Your task to perform on an android device: Open privacy settings Image 0: 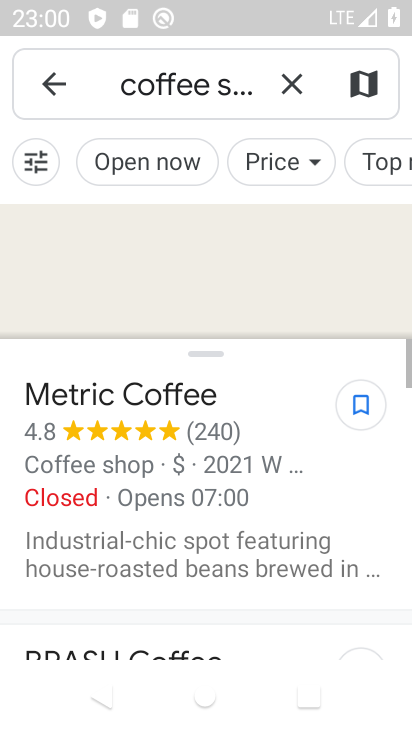
Step 0: press home button
Your task to perform on an android device: Open privacy settings Image 1: 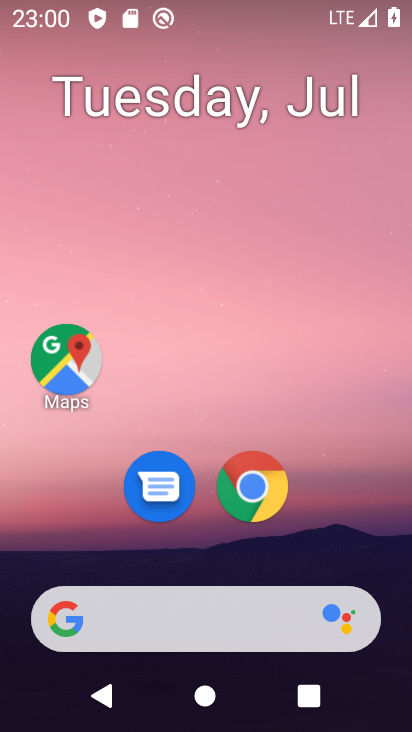
Step 1: drag from (367, 539) to (362, 202)
Your task to perform on an android device: Open privacy settings Image 2: 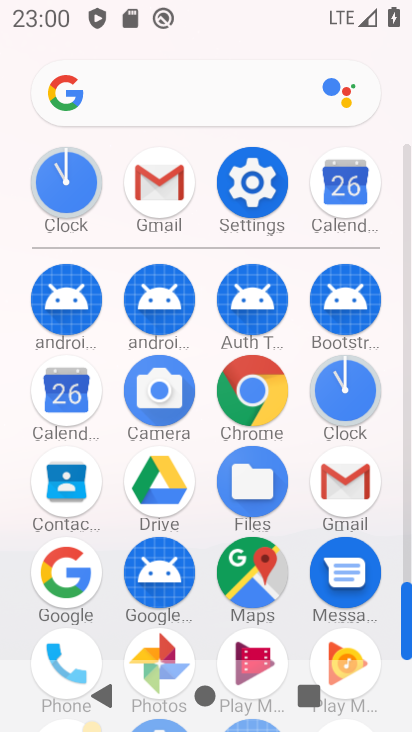
Step 2: click (249, 205)
Your task to perform on an android device: Open privacy settings Image 3: 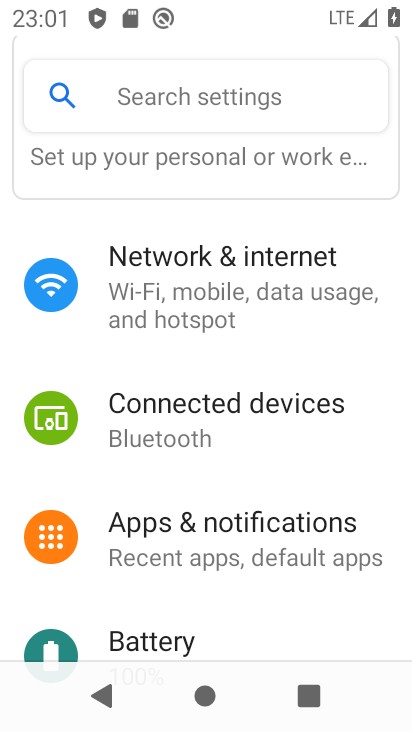
Step 3: drag from (361, 483) to (345, 384)
Your task to perform on an android device: Open privacy settings Image 4: 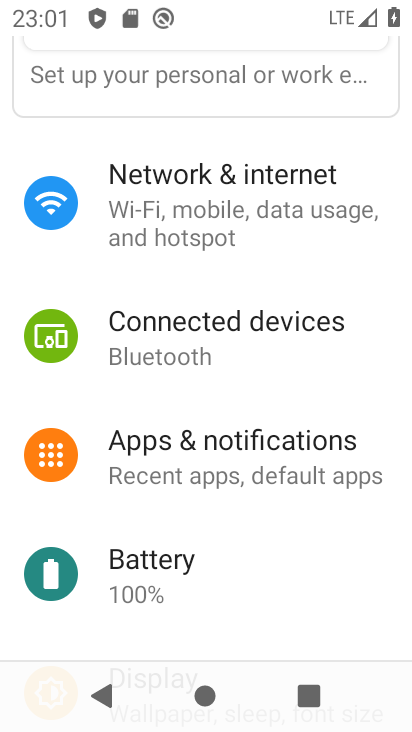
Step 4: drag from (362, 532) to (345, 424)
Your task to perform on an android device: Open privacy settings Image 5: 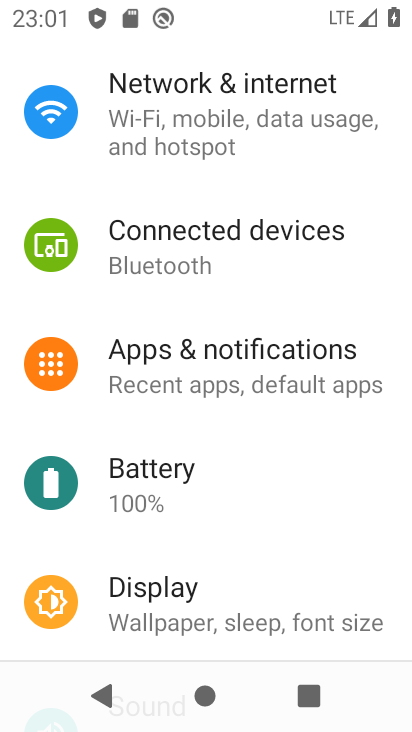
Step 5: drag from (344, 540) to (336, 428)
Your task to perform on an android device: Open privacy settings Image 6: 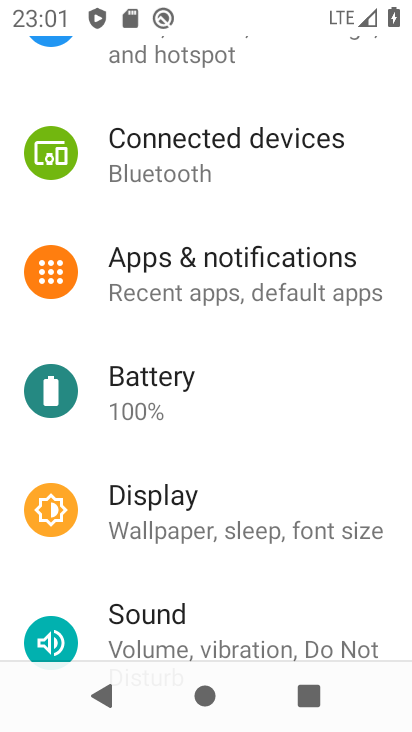
Step 6: drag from (330, 438) to (326, 318)
Your task to perform on an android device: Open privacy settings Image 7: 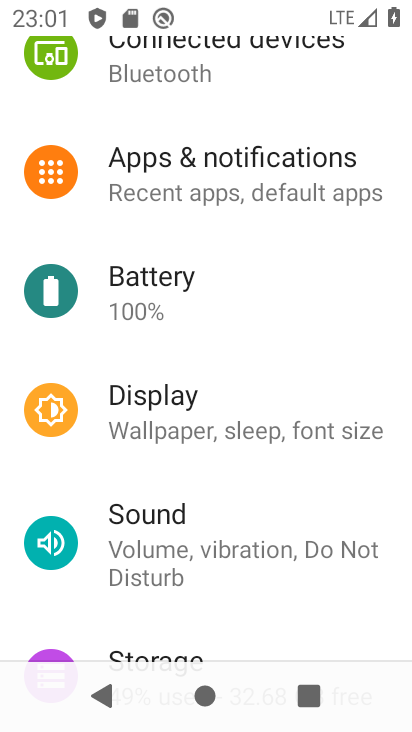
Step 7: drag from (353, 557) to (336, 337)
Your task to perform on an android device: Open privacy settings Image 8: 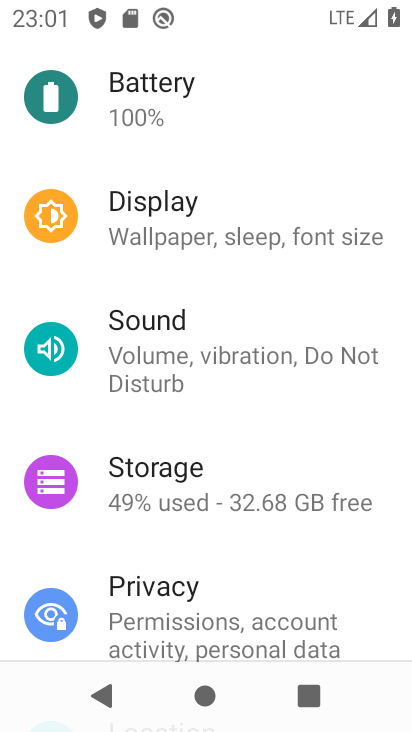
Step 8: drag from (352, 533) to (355, 438)
Your task to perform on an android device: Open privacy settings Image 9: 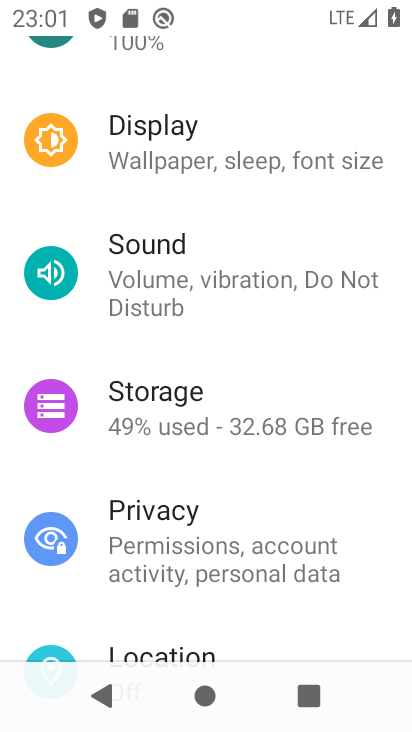
Step 9: drag from (365, 580) to (348, 436)
Your task to perform on an android device: Open privacy settings Image 10: 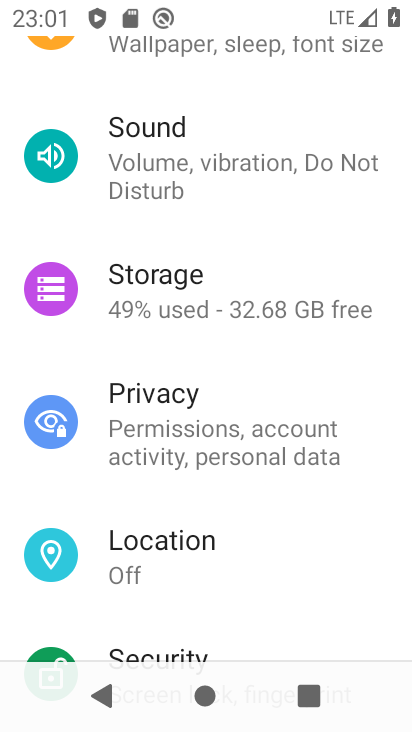
Step 10: drag from (342, 542) to (343, 446)
Your task to perform on an android device: Open privacy settings Image 11: 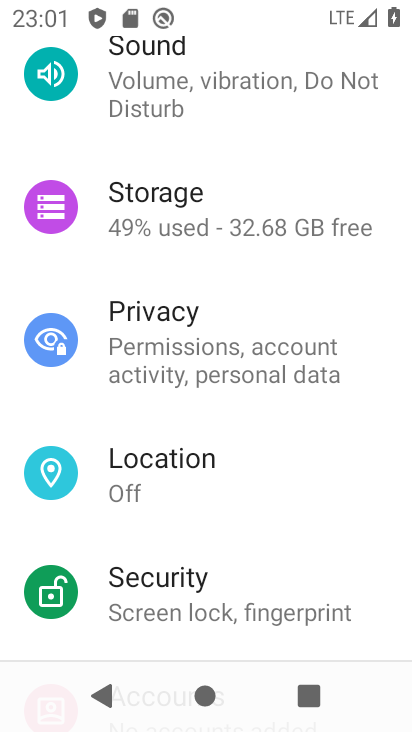
Step 11: drag from (338, 570) to (329, 455)
Your task to perform on an android device: Open privacy settings Image 12: 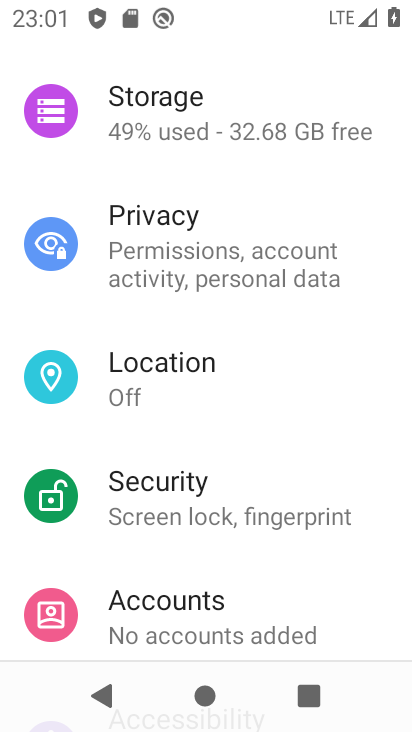
Step 12: drag from (333, 555) to (326, 427)
Your task to perform on an android device: Open privacy settings Image 13: 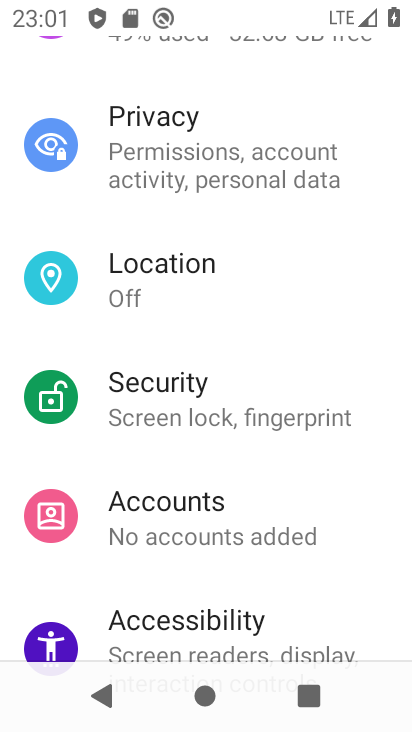
Step 13: drag from (325, 501) to (326, 385)
Your task to perform on an android device: Open privacy settings Image 14: 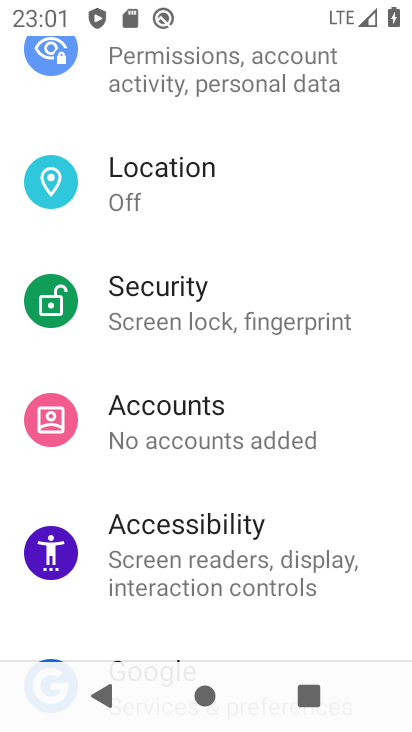
Step 14: drag from (346, 512) to (350, 411)
Your task to perform on an android device: Open privacy settings Image 15: 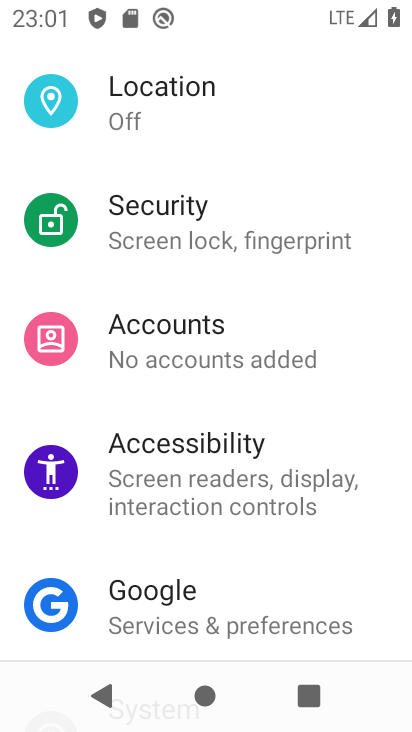
Step 15: drag from (340, 324) to (352, 457)
Your task to perform on an android device: Open privacy settings Image 16: 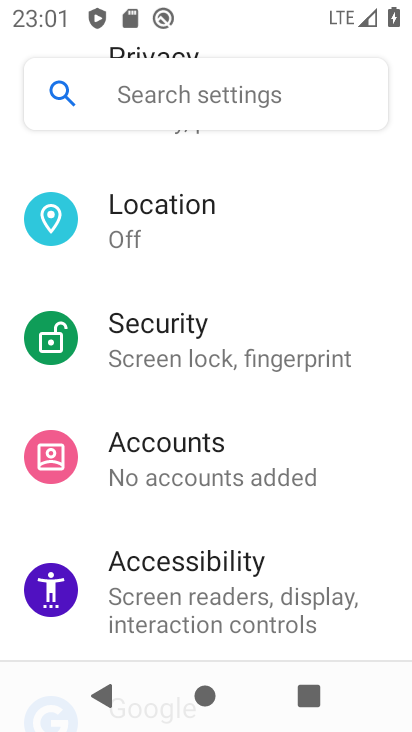
Step 16: drag from (355, 375) to (357, 469)
Your task to perform on an android device: Open privacy settings Image 17: 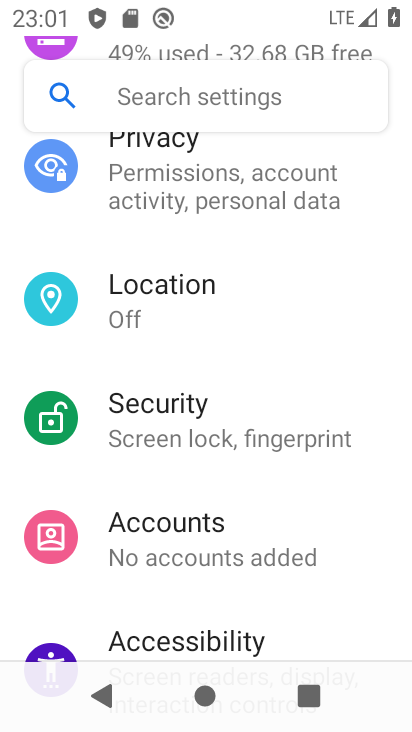
Step 17: drag from (355, 369) to (359, 449)
Your task to perform on an android device: Open privacy settings Image 18: 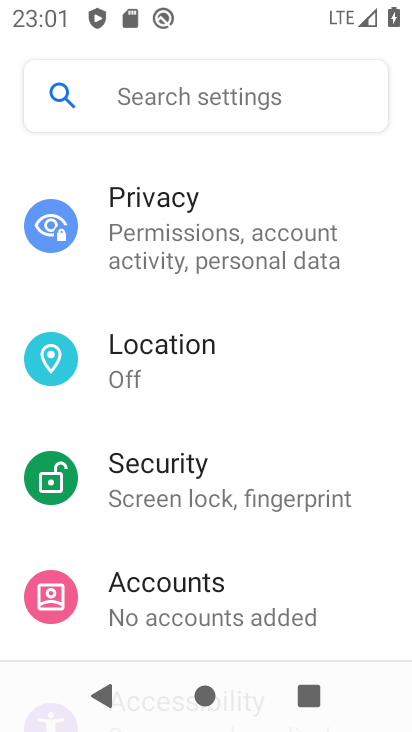
Step 18: drag from (359, 381) to (358, 467)
Your task to perform on an android device: Open privacy settings Image 19: 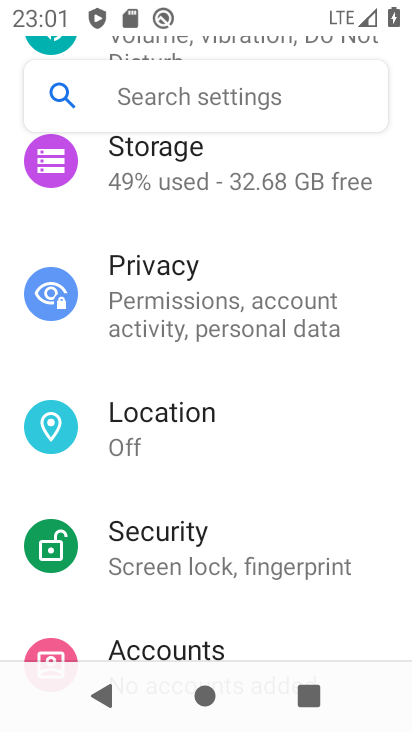
Step 19: drag from (342, 476) to (352, 519)
Your task to perform on an android device: Open privacy settings Image 20: 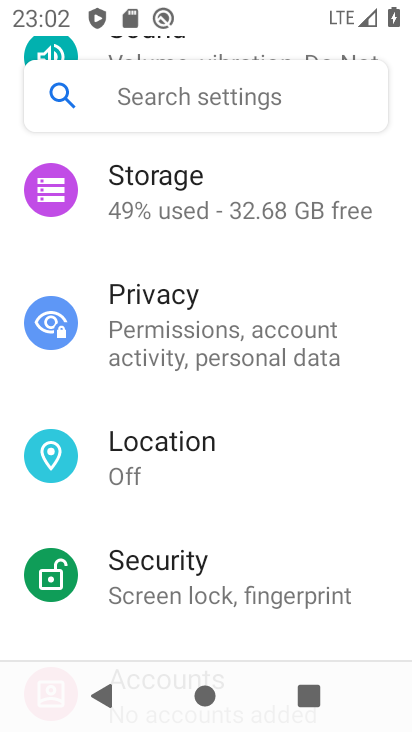
Step 20: drag from (360, 461) to (365, 497)
Your task to perform on an android device: Open privacy settings Image 21: 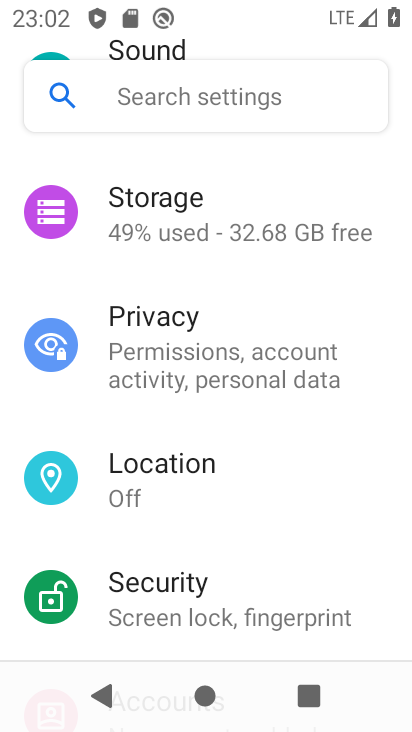
Step 21: drag from (358, 327) to (360, 448)
Your task to perform on an android device: Open privacy settings Image 22: 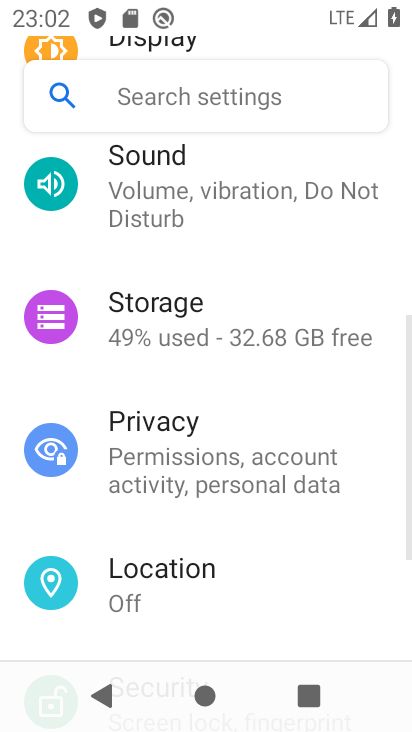
Step 22: click (336, 440)
Your task to perform on an android device: Open privacy settings Image 23: 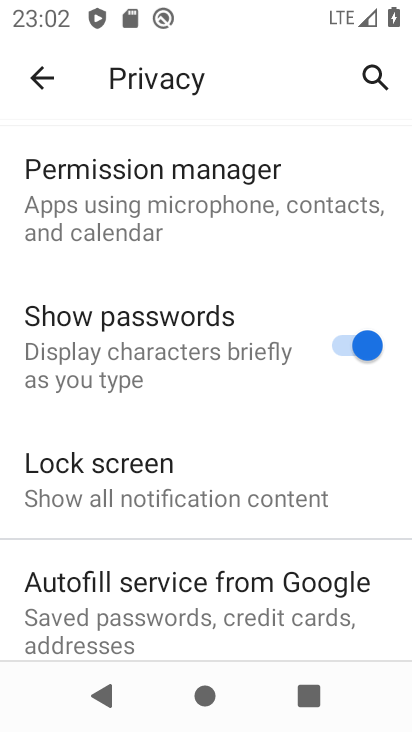
Step 23: task complete